Your task to perform on an android device: open chrome and create a bookmark for the current page Image 0: 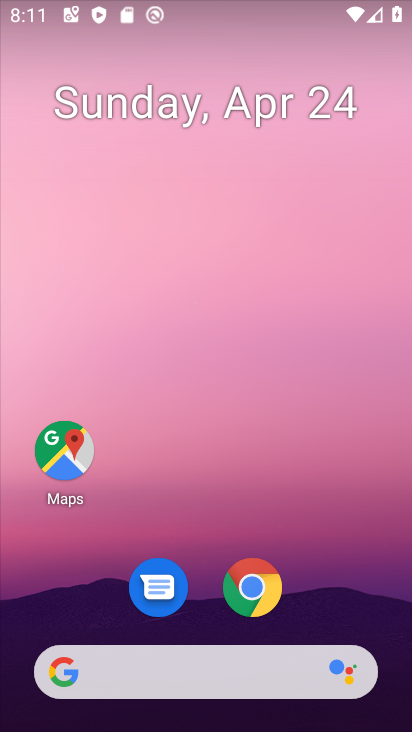
Step 0: click (276, 600)
Your task to perform on an android device: open chrome and create a bookmark for the current page Image 1: 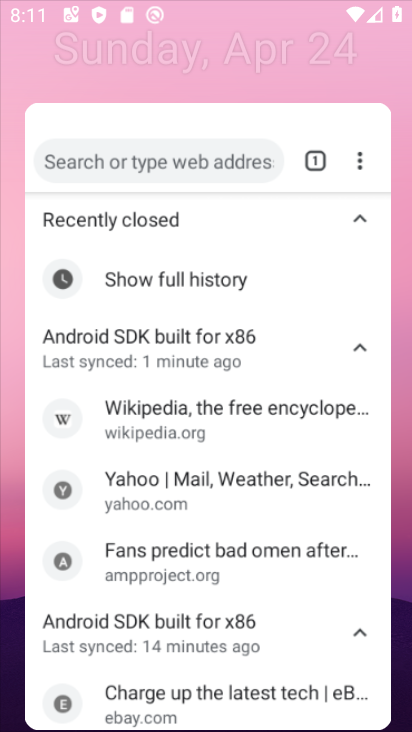
Step 1: click (275, 602)
Your task to perform on an android device: open chrome and create a bookmark for the current page Image 2: 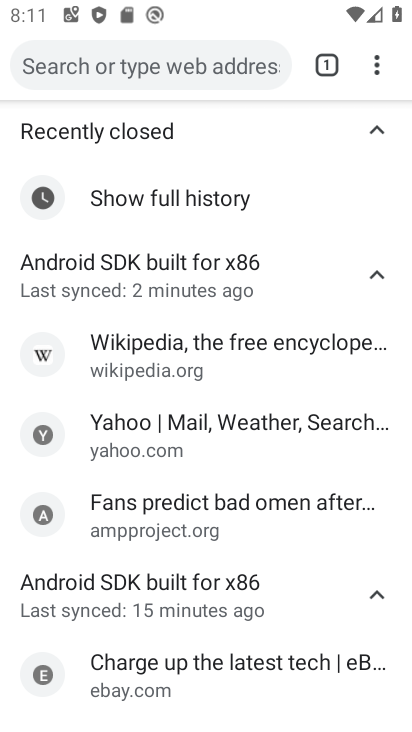
Step 2: click (386, 80)
Your task to perform on an android device: open chrome and create a bookmark for the current page Image 3: 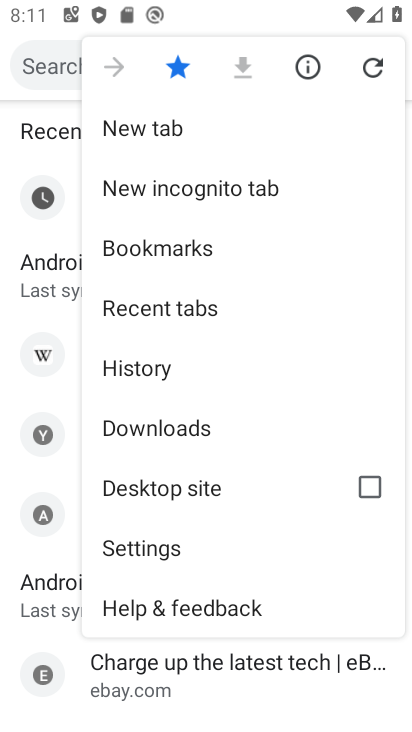
Step 3: task complete